Your task to perform on an android device: turn on javascript in the chrome app Image 0: 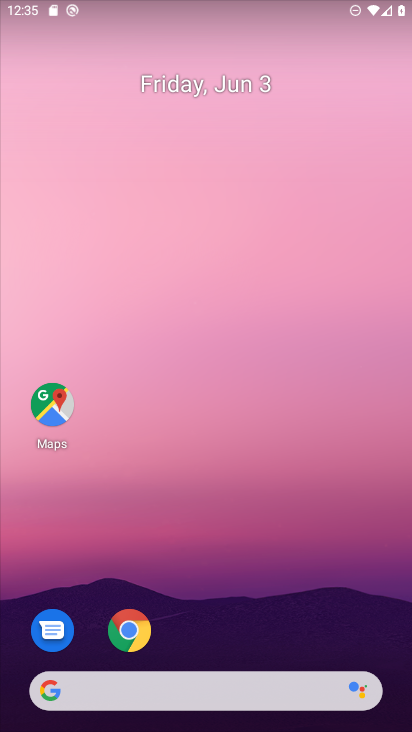
Step 0: drag from (240, 628) to (188, 159)
Your task to perform on an android device: turn on javascript in the chrome app Image 1: 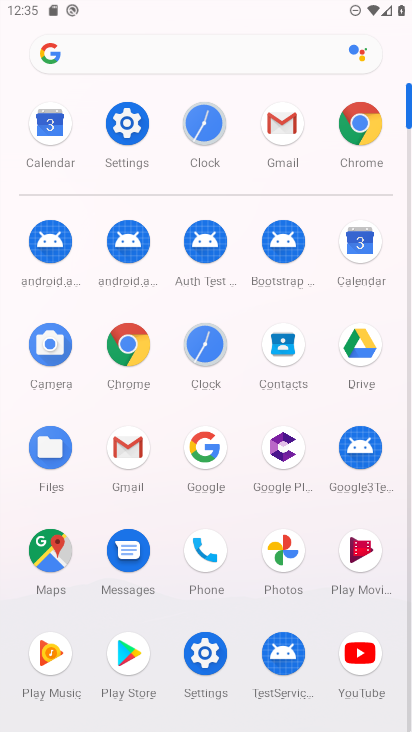
Step 1: click (370, 125)
Your task to perform on an android device: turn on javascript in the chrome app Image 2: 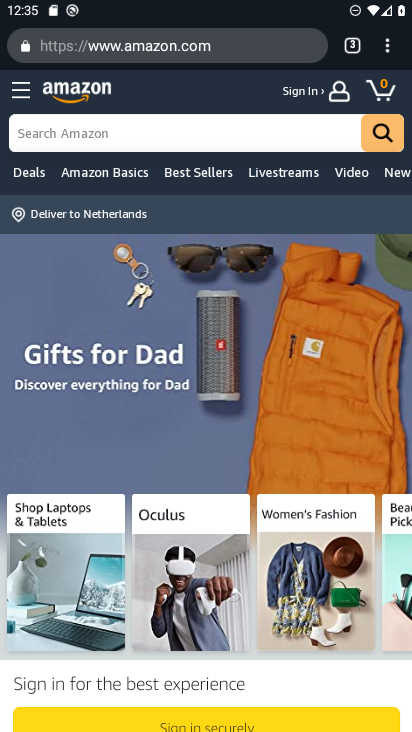
Step 2: click (394, 45)
Your task to perform on an android device: turn on javascript in the chrome app Image 3: 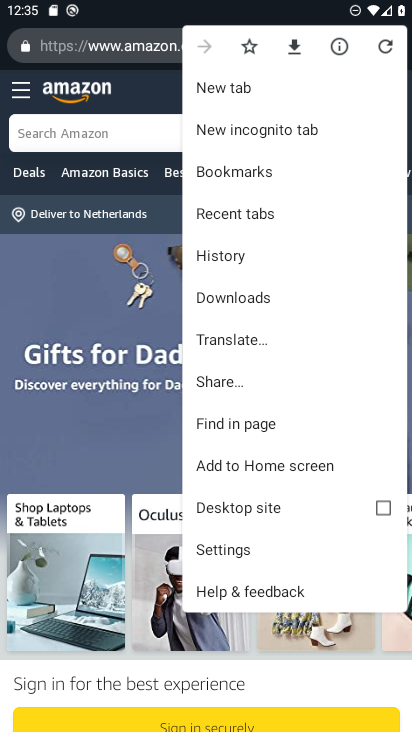
Step 3: click (239, 543)
Your task to perform on an android device: turn on javascript in the chrome app Image 4: 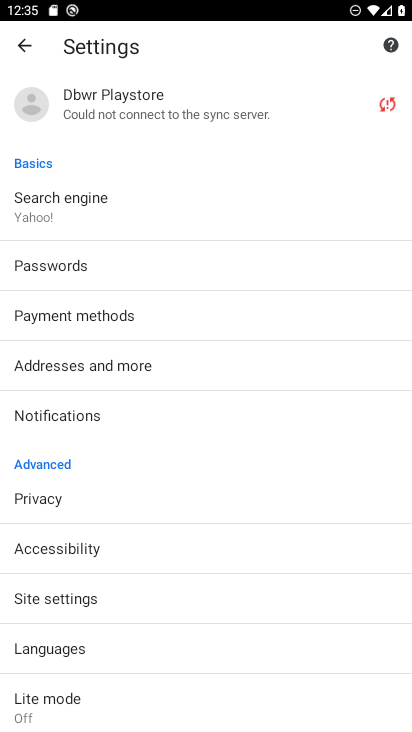
Step 4: click (115, 599)
Your task to perform on an android device: turn on javascript in the chrome app Image 5: 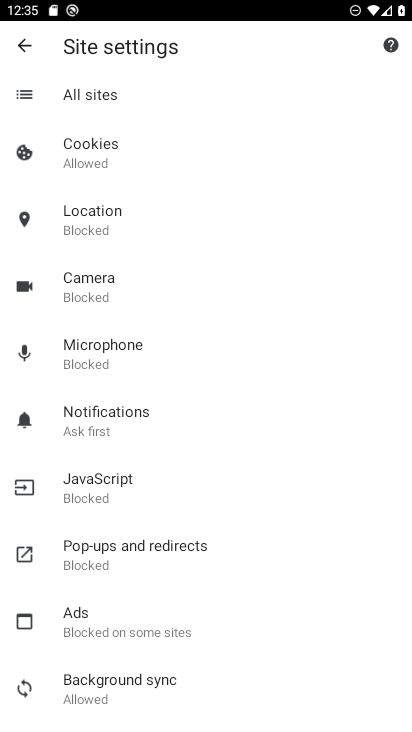
Step 5: click (134, 502)
Your task to perform on an android device: turn on javascript in the chrome app Image 6: 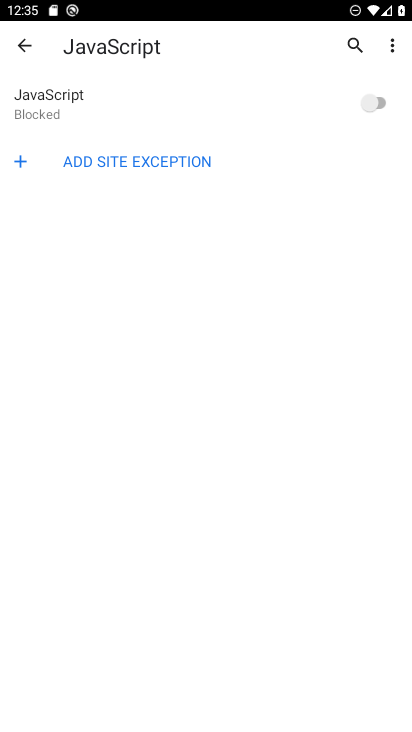
Step 6: click (378, 112)
Your task to perform on an android device: turn on javascript in the chrome app Image 7: 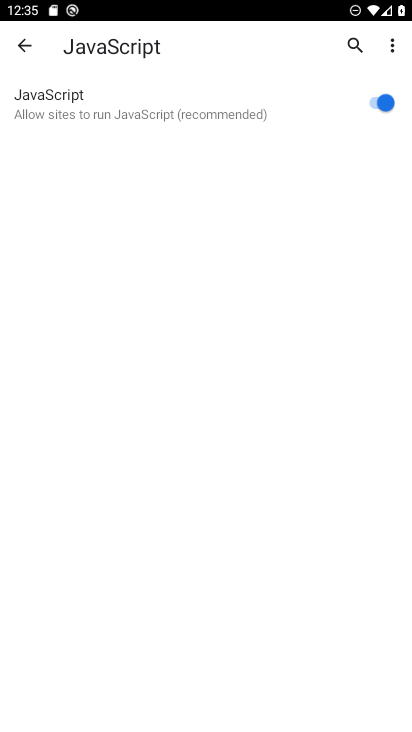
Step 7: task complete